Your task to perform on an android device: Open Youtube and go to the subscriptions tab Image 0: 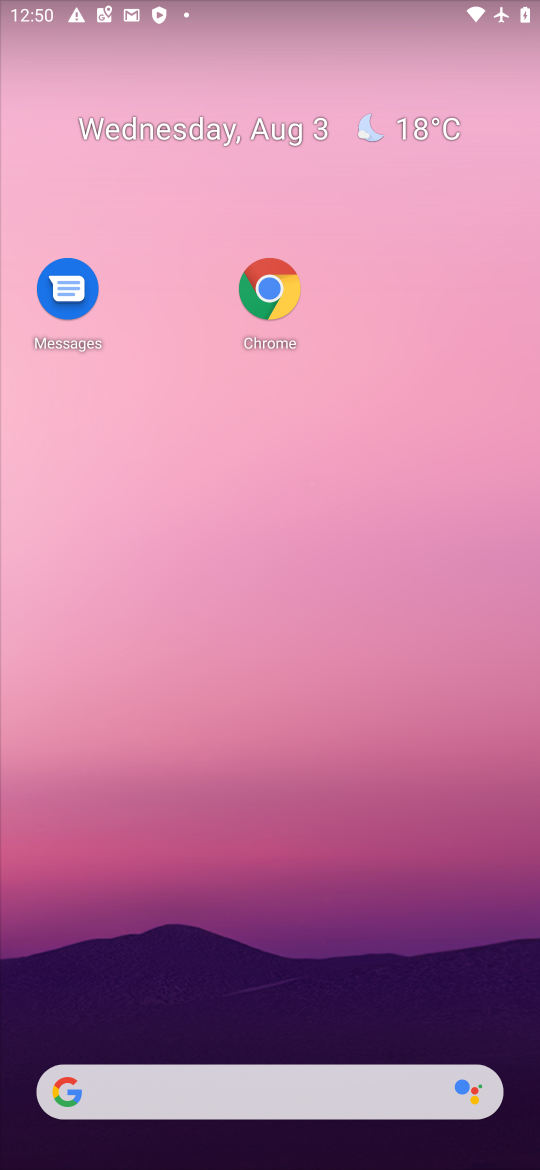
Step 0: drag from (313, 1022) to (329, 341)
Your task to perform on an android device: Open Youtube and go to the subscriptions tab Image 1: 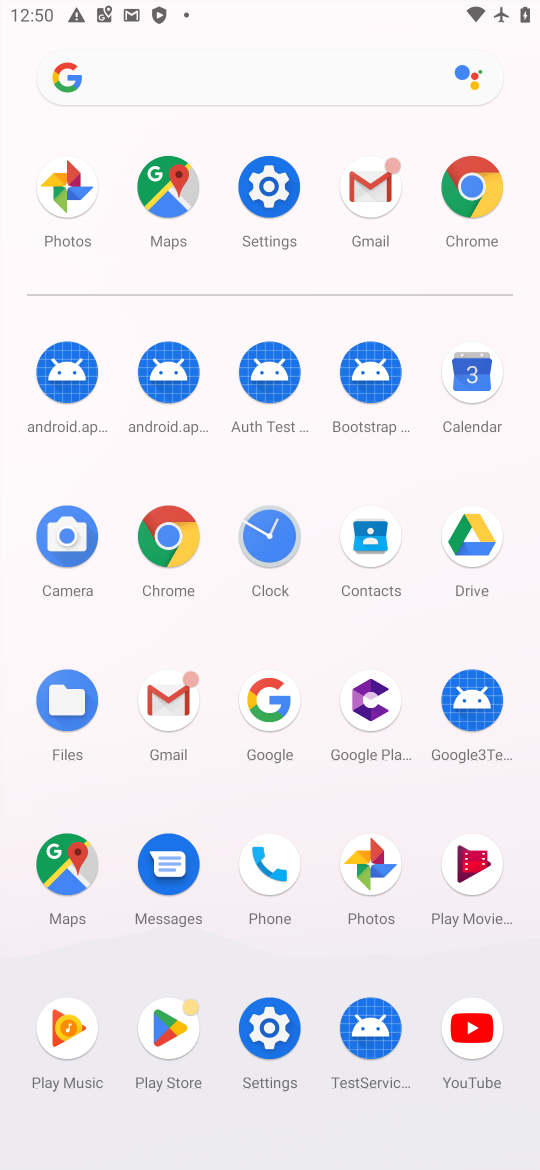
Step 1: click (464, 1051)
Your task to perform on an android device: Open Youtube and go to the subscriptions tab Image 2: 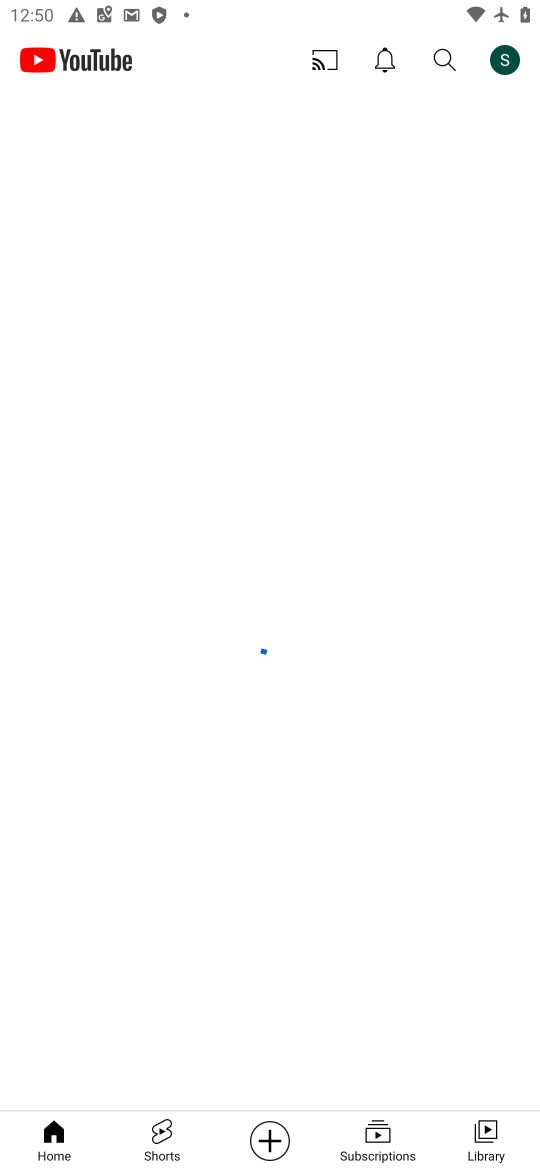
Step 2: click (384, 1127)
Your task to perform on an android device: Open Youtube and go to the subscriptions tab Image 3: 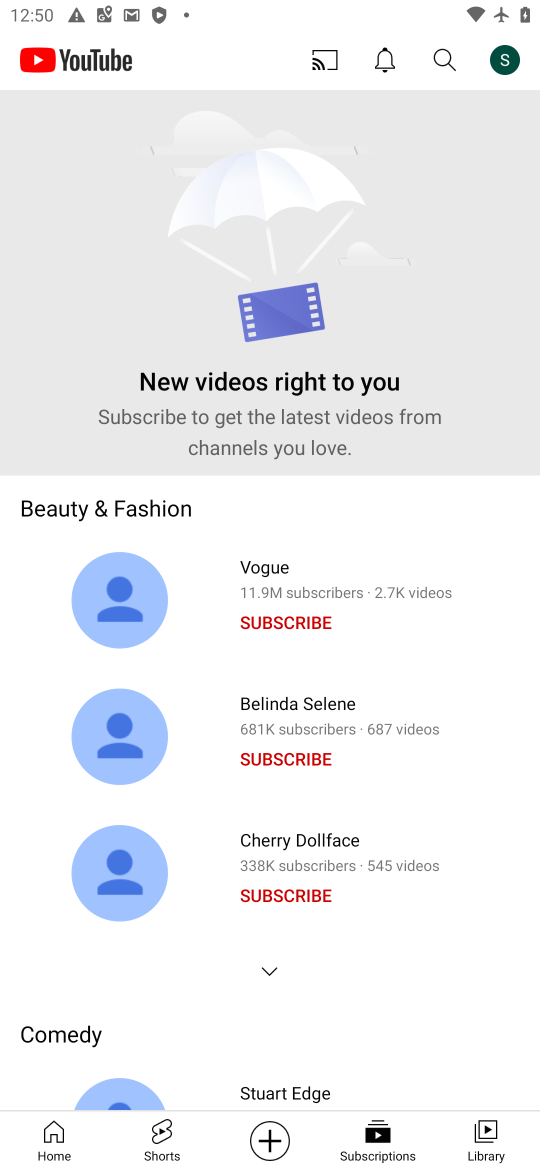
Step 3: task complete